Your task to perform on an android device: delete the emails in spam in the gmail app Image 0: 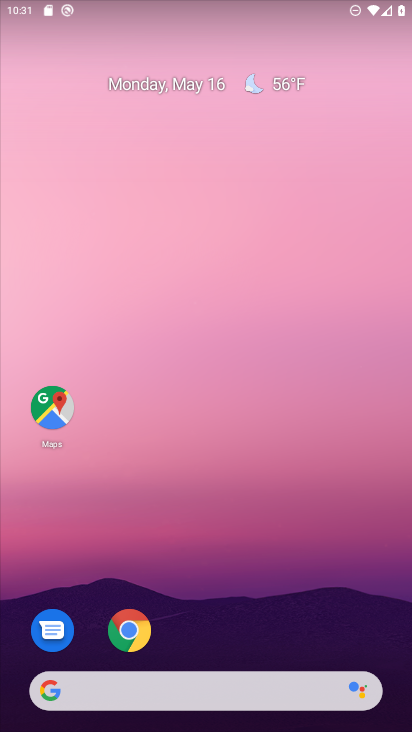
Step 0: drag from (201, 643) to (245, 108)
Your task to perform on an android device: delete the emails in spam in the gmail app Image 1: 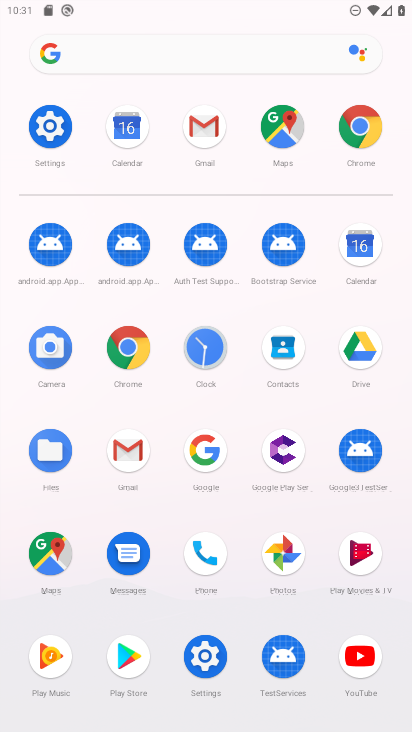
Step 1: click (133, 452)
Your task to perform on an android device: delete the emails in spam in the gmail app Image 2: 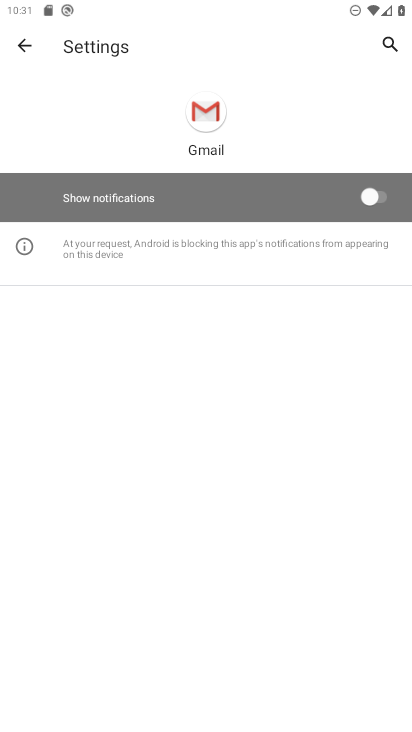
Step 2: click (29, 56)
Your task to perform on an android device: delete the emails in spam in the gmail app Image 3: 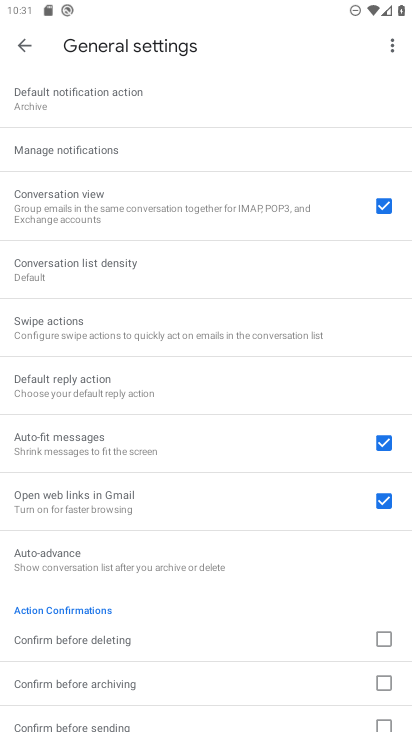
Step 3: click (28, 49)
Your task to perform on an android device: delete the emails in spam in the gmail app Image 4: 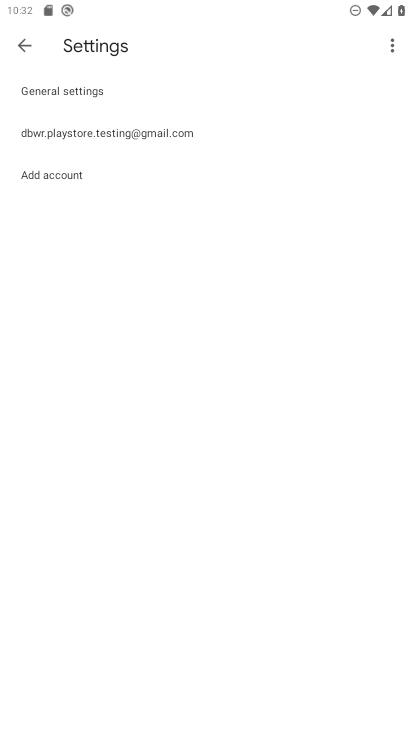
Step 4: click (28, 49)
Your task to perform on an android device: delete the emails in spam in the gmail app Image 5: 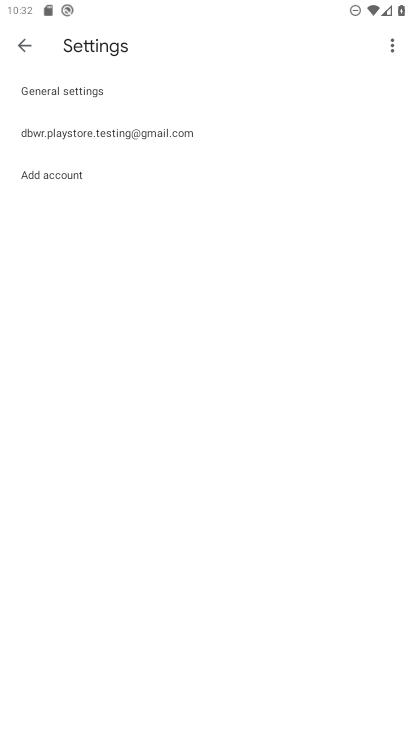
Step 5: click (29, 50)
Your task to perform on an android device: delete the emails in spam in the gmail app Image 6: 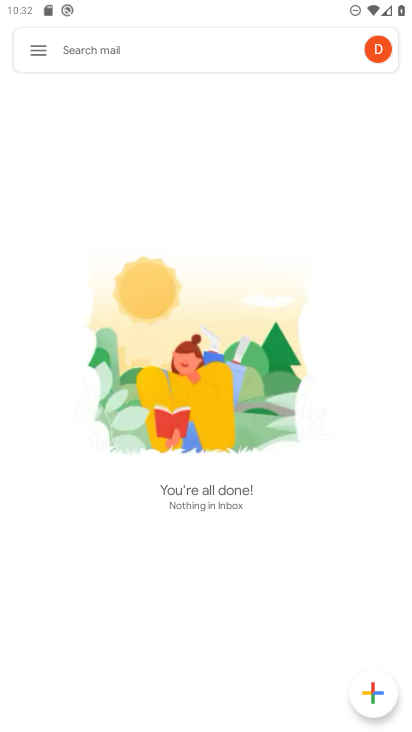
Step 6: click (30, 50)
Your task to perform on an android device: delete the emails in spam in the gmail app Image 7: 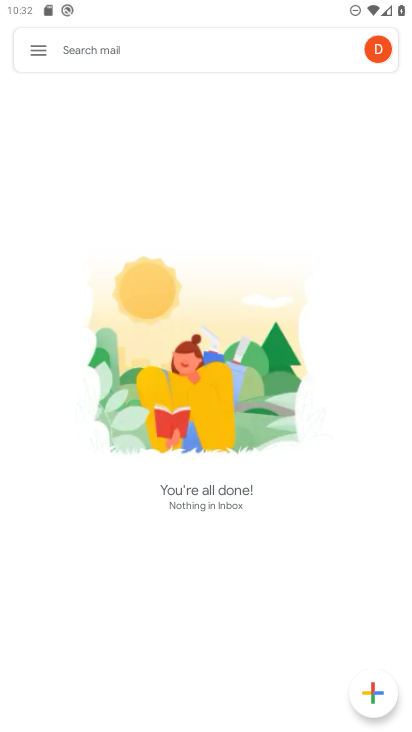
Step 7: click (37, 47)
Your task to perform on an android device: delete the emails in spam in the gmail app Image 8: 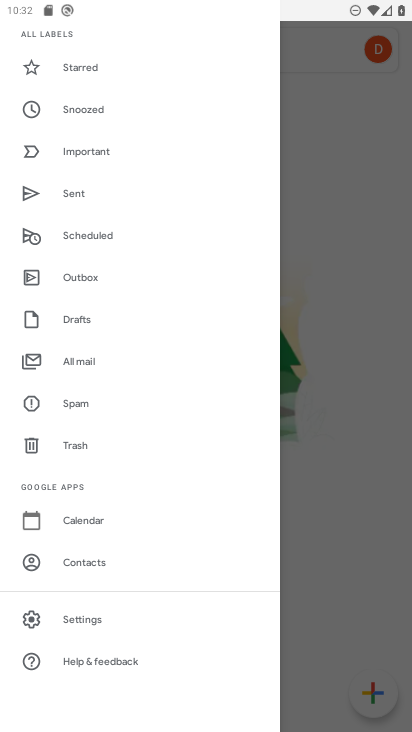
Step 8: click (90, 400)
Your task to perform on an android device: delete the emails in spam in the gmail app Image 9: 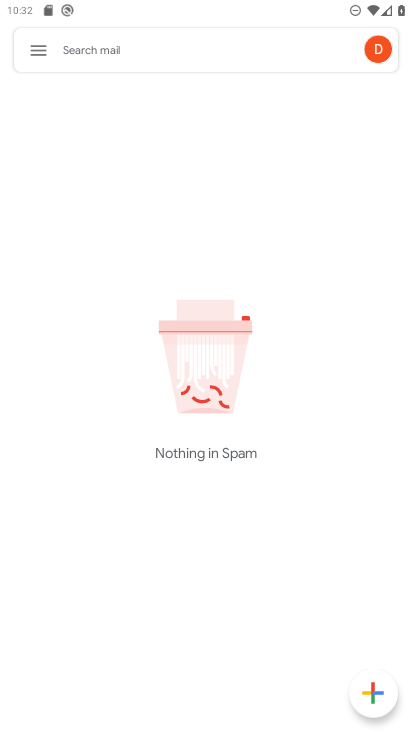
Step 9: task complete